Your task to perform on an android device: Go to internet settings Image 0: 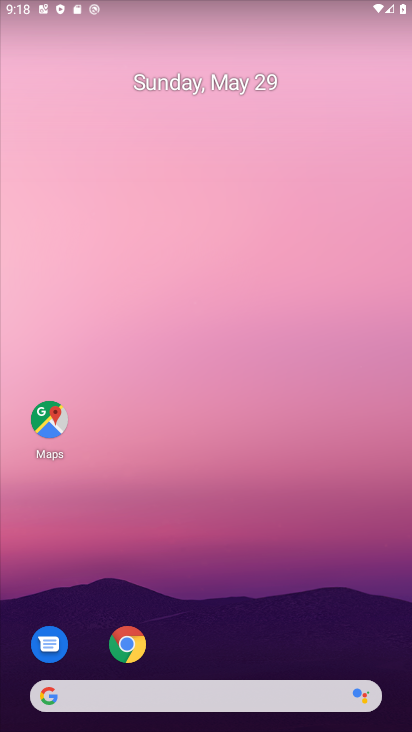
Step 0: drag from (246, 619) to (232, 250)
Your task to perform on an android device: Go to internet settings Image 1: 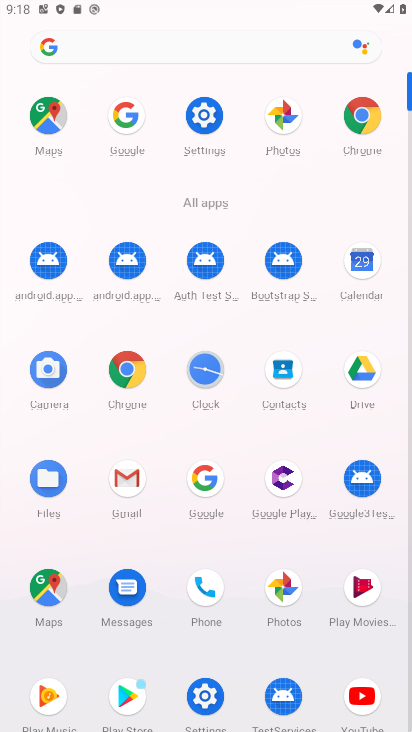
Step 1: click (193, 115)
Your task to perform on an android device: Go to internet settings Image 2: 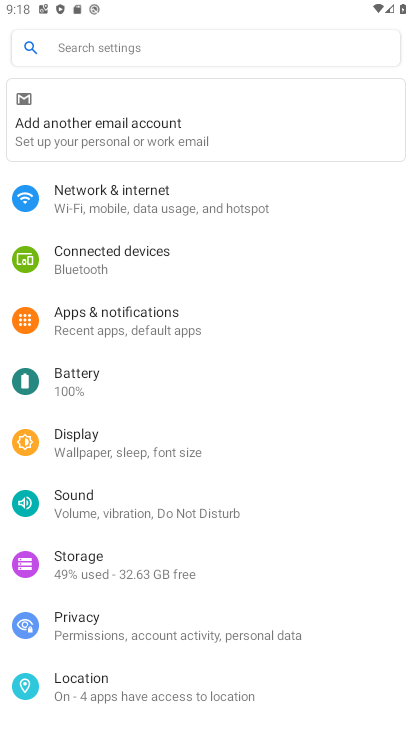
Step 2: click (165, 204)
Your task to perform on an android device: Go to internet settings Image 3: 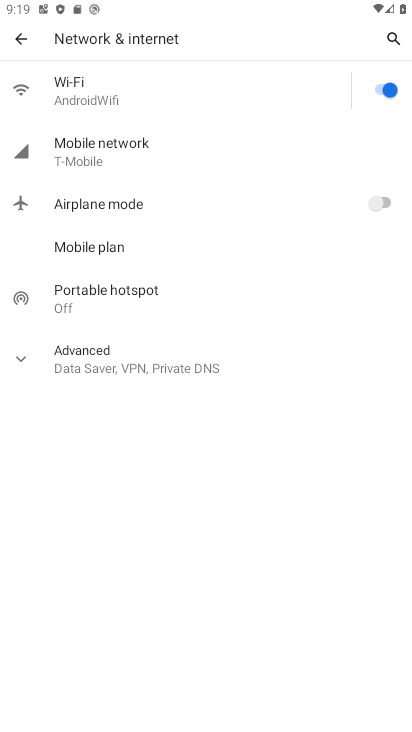
Step 3: task complete